Your task to perform on an android device: add a label to a message in the gmail app Image 0: 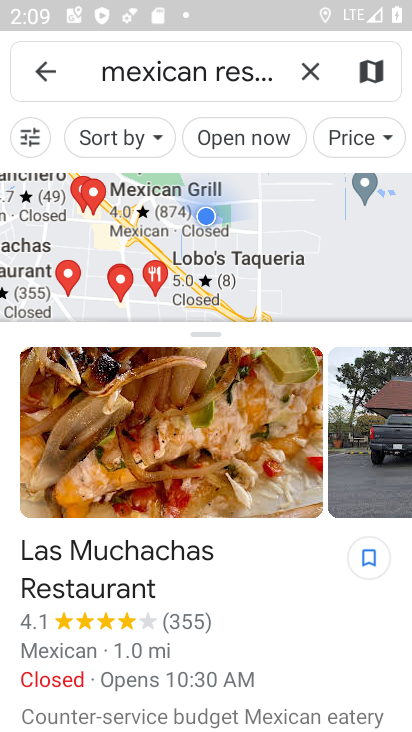
Step 0: press home button
Your task to perform on an android device: add a label to a message in the gmail app Image 1: 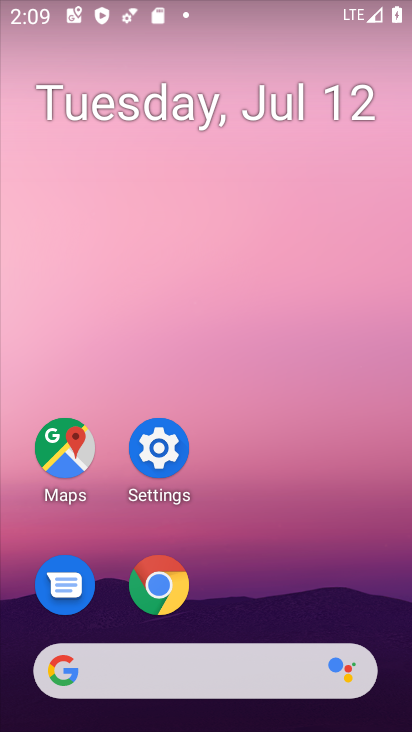
Step 1: drag from (387, 698) to (362, 172)
Your task to perform on an android device: add a label to a message in the gmail app Image 2: 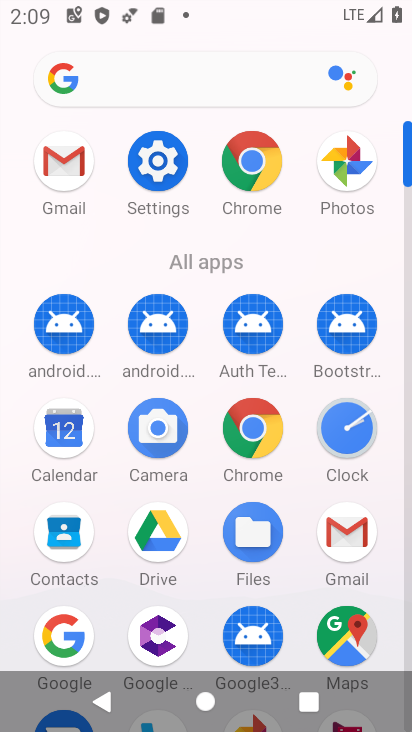
Step 2: drag from (346, 528) to (262, 446)
Your task to perform on an android device: add a label to a message in the gmail app Image 3: 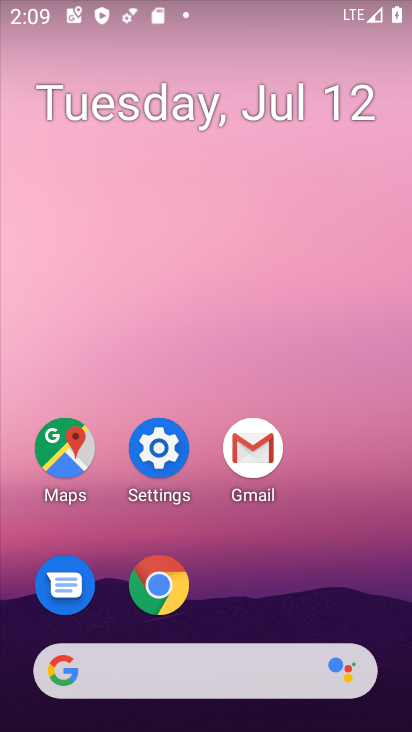
Step 3: click (245, 450)
Your task to perform on an android device: add a label to a message in the gmail app Image 4: 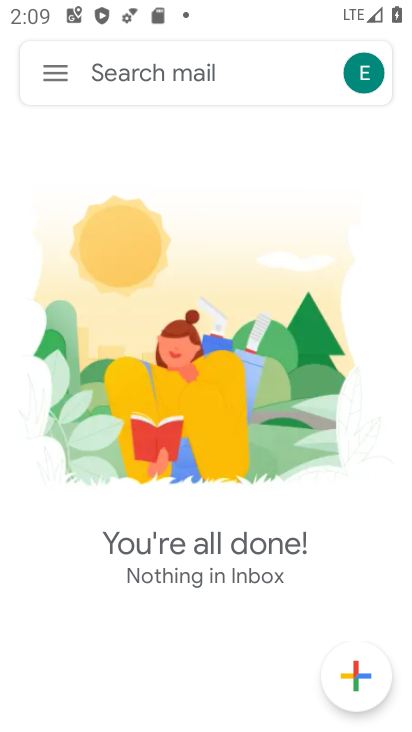
Step 4: task complete